Your task to perform on an android device: What's the weather going to be this weekend? Image 0: 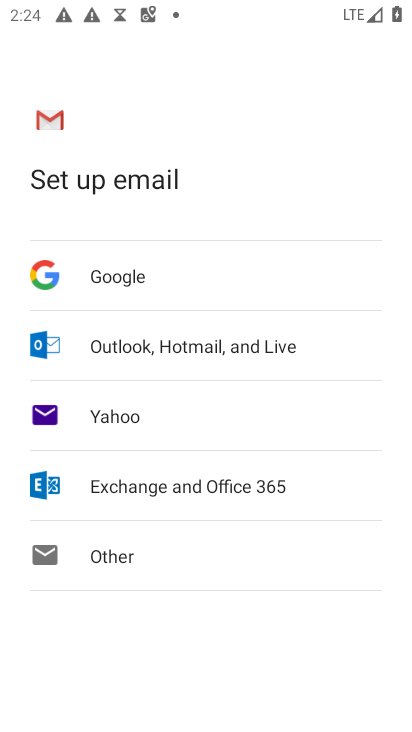
Step 0: press back button
Your task to perform on an android device: What's the weather going to be this weekend? Image 1: 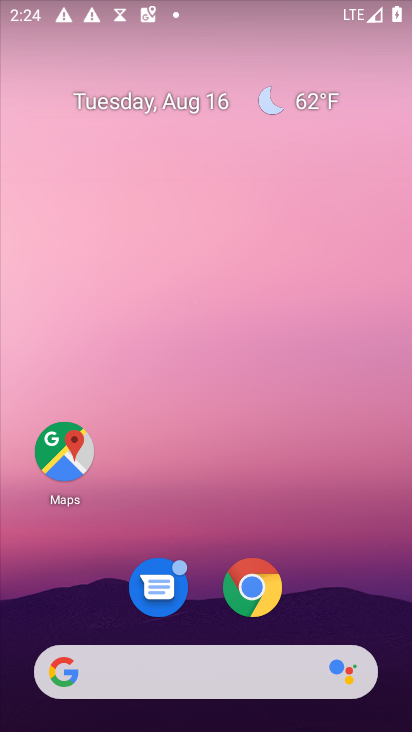
Step 1: click (210, 668)
Your task to perform on an android device: What's the weather going to be this weekend? Image 2: 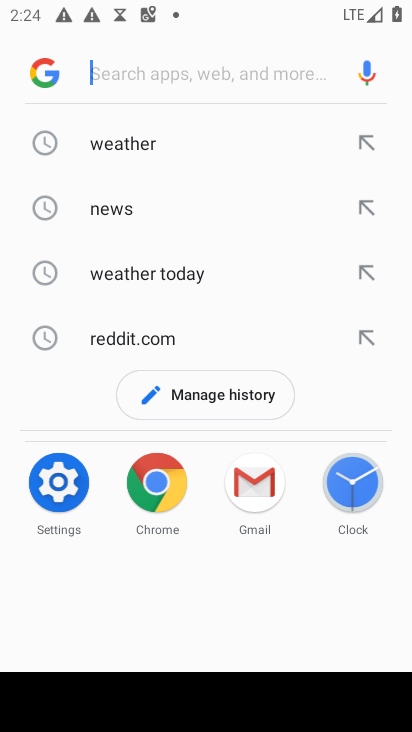
Step 2: click (131, 140)
Your task to perform on an android device: What's the weather going to be this weekend? Image 3: 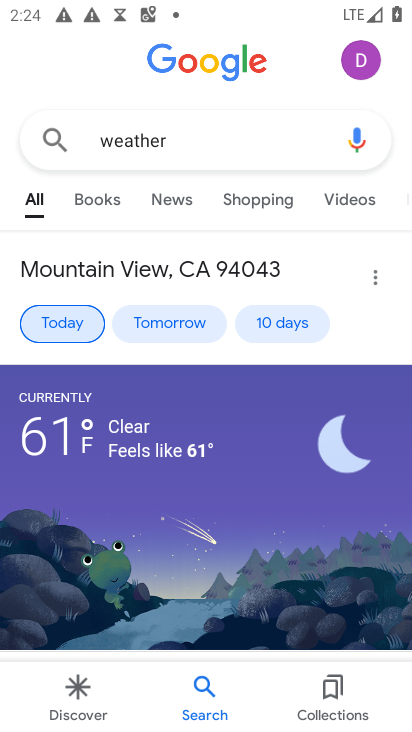
Step 3: click (267, 320)
Your task to perform on an android device: What's the weather going to be this weekend? Image 4: 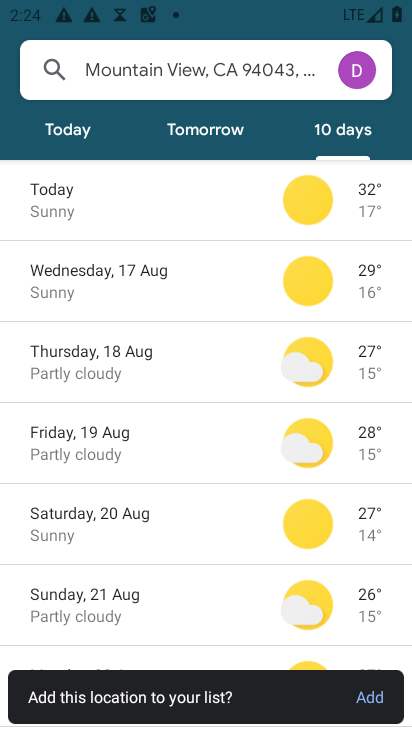
Step 4: click (97, 520)
Your task to perform on an android device: What's the weather going to be this weekend? Image 5: 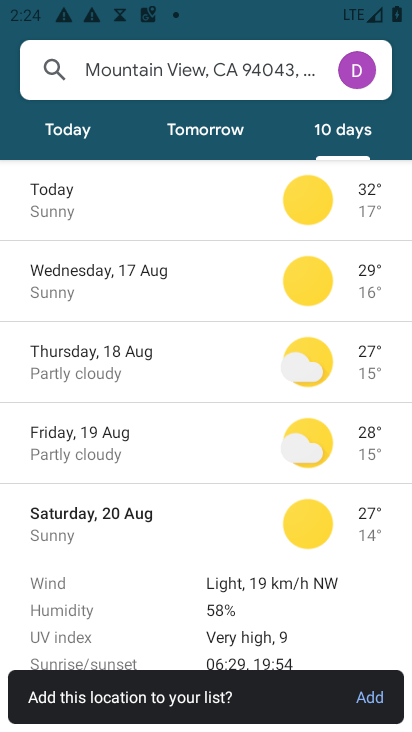
Step 5: task complete